Your task to perform on an android device: toggle wifi Image 0: 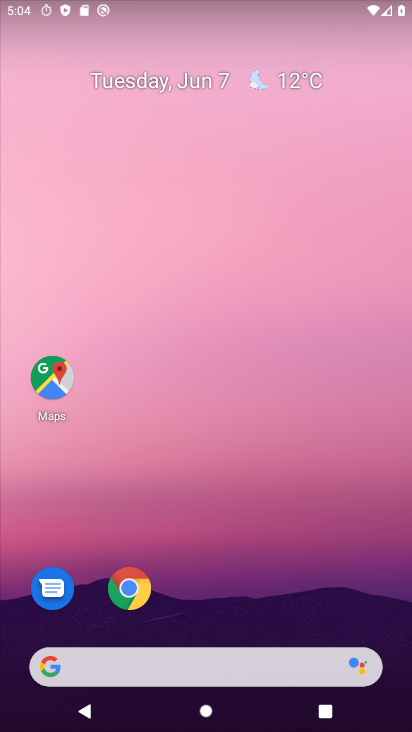
Step 0: click (132, 586)
Your task to perform on an android device: toggle wifi Image 1: 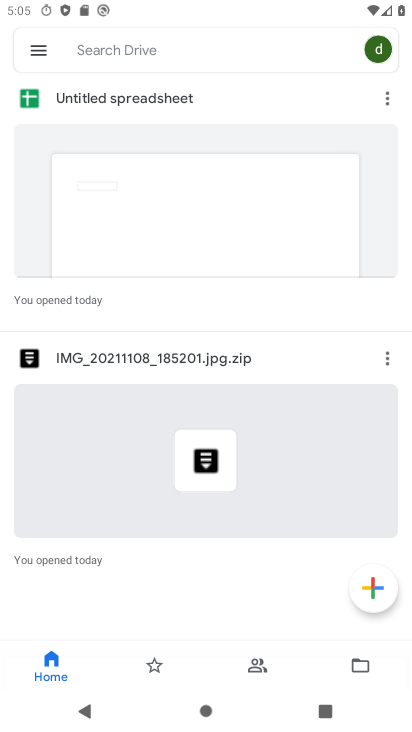
Step 1: press home button
Your task to perform on an android device: toggle wifi Image 2: 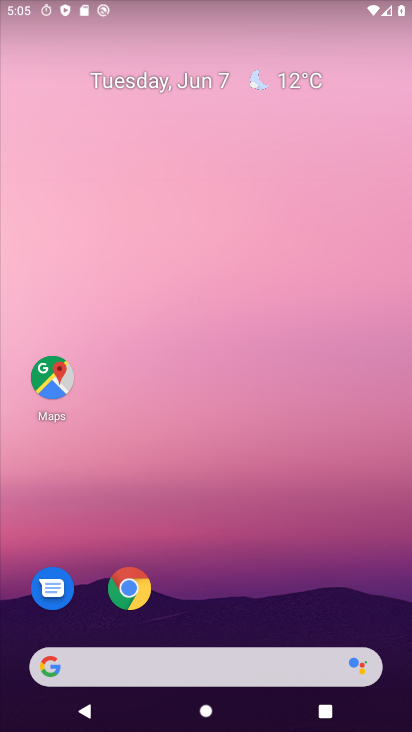
Step 2: click (128, 595)
Your task to perform on an android device: toggle wifi Image 3: 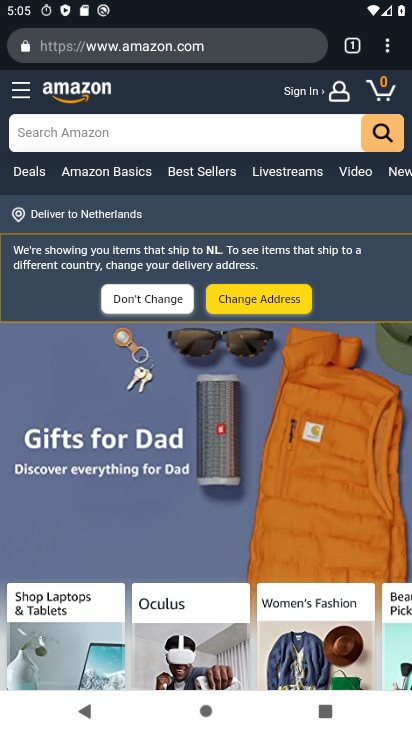
Step 3: click (387, 47)
Your task to perform on an android device: toggle wifi Image 4: 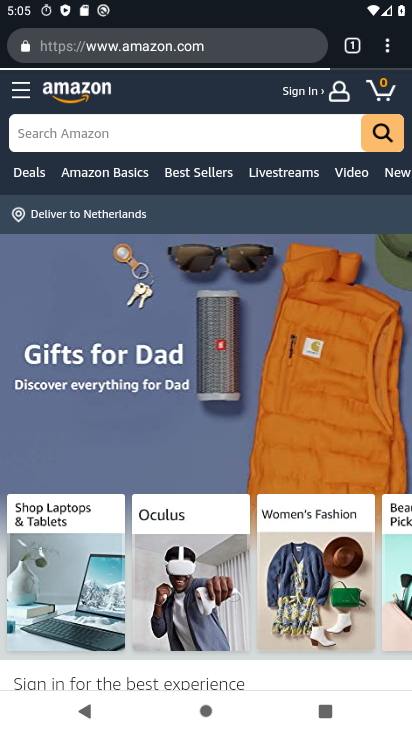
Step 4: click (393, 47)
Your task to perform on an android device: toggle wifi Image 5: 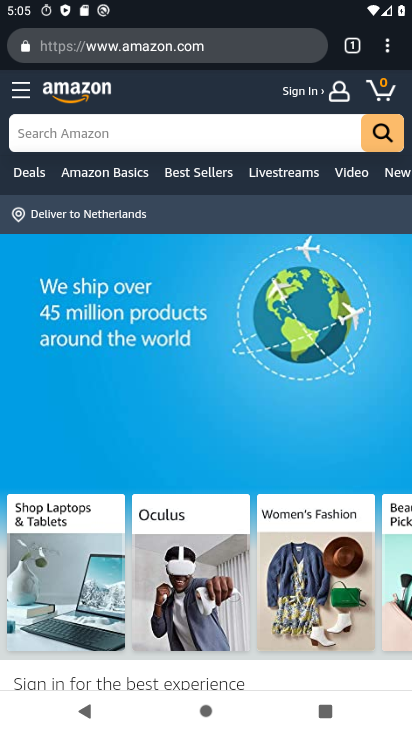
Step 5: click (389, 49)
Your task to perform on an android device: toggle wifi Image 6: 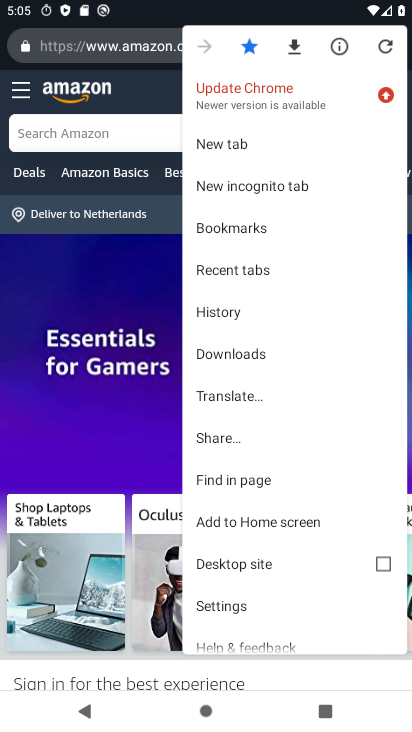
Step 6: click (210, 603)
Your task to perform on an android device: toggle wifi Image 7: 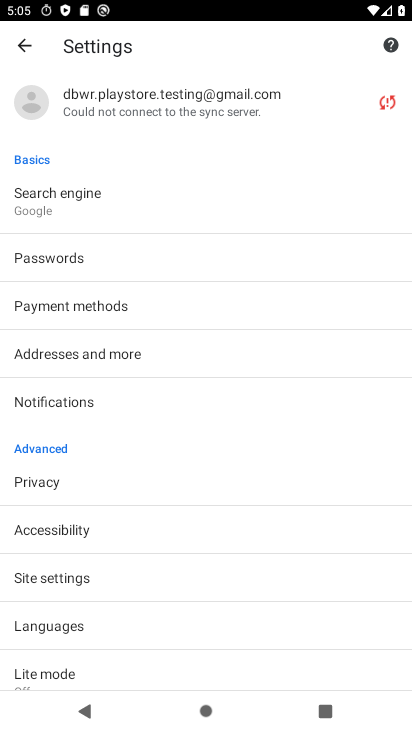
Step 7: press back button
Your task to perform on an android device: toggle wifi Image 8: 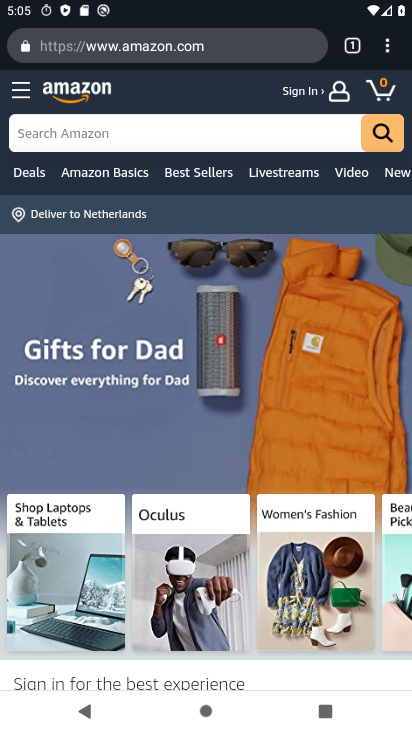
Step 8: press back button
Your task to perform on an android device: toggle wifi Image 9: 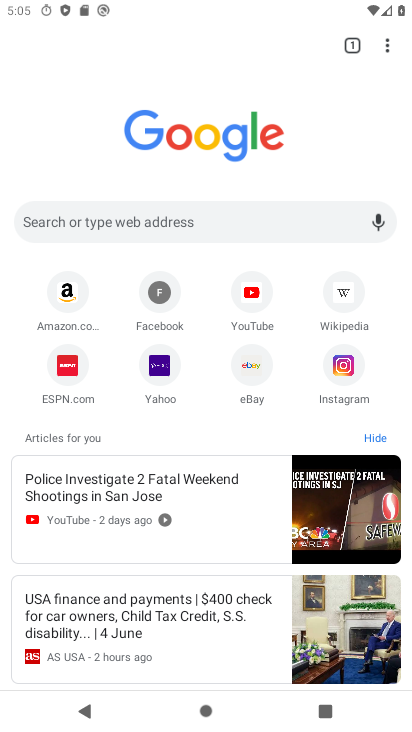
Step 9: press back button
Your task to perform on an android device: toggle wifi Image 10: 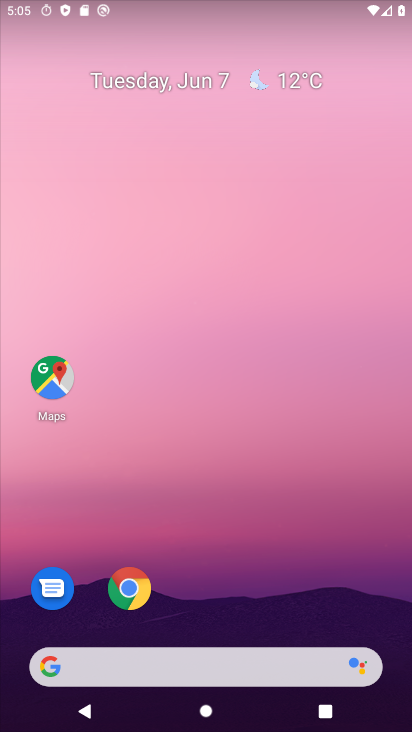
Step 10: drag from (245, 613) to (251, 78)
Your task to perform on an android device: toggle wifi Image 11: 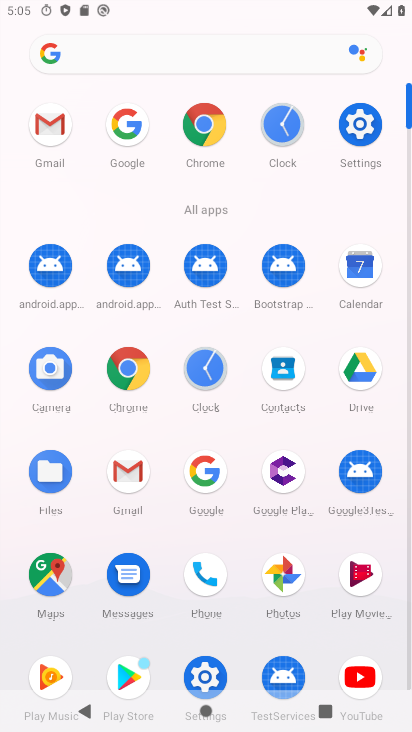
Step 11: click (360, 127)
Your task to perform on an android device: toggle wifi Image 12: 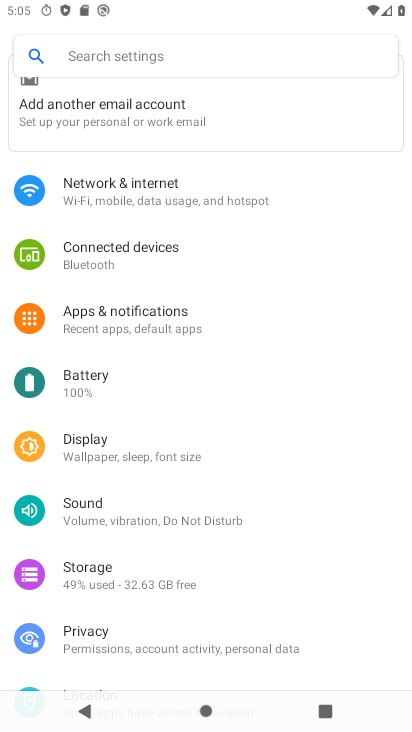
Step 12: click (149, 195)
Your task to perform on an android device: toggle wifi Image 13: 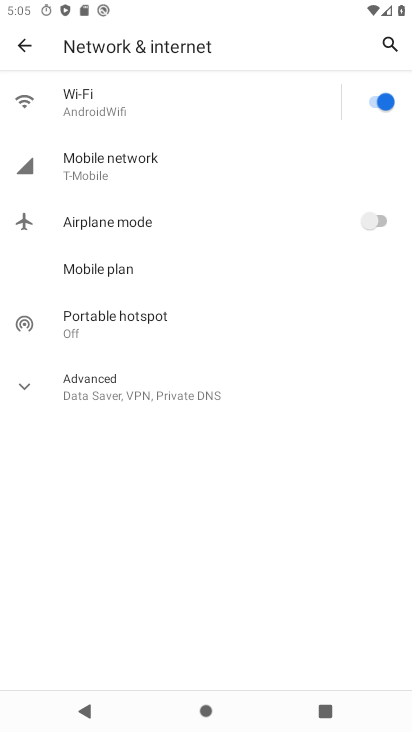
Step 13: click (379, 104)
Your task to perform on an android device: toggle wifi Image 14: 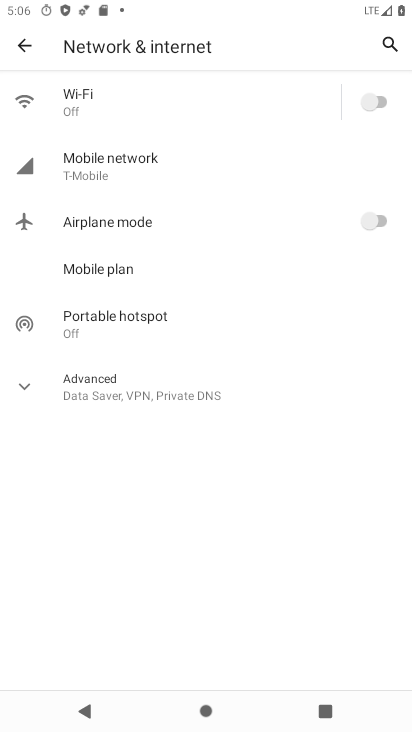
Step 14: task complete